Your task to perform on an android device: turn off translation in the chrome app Image 0: 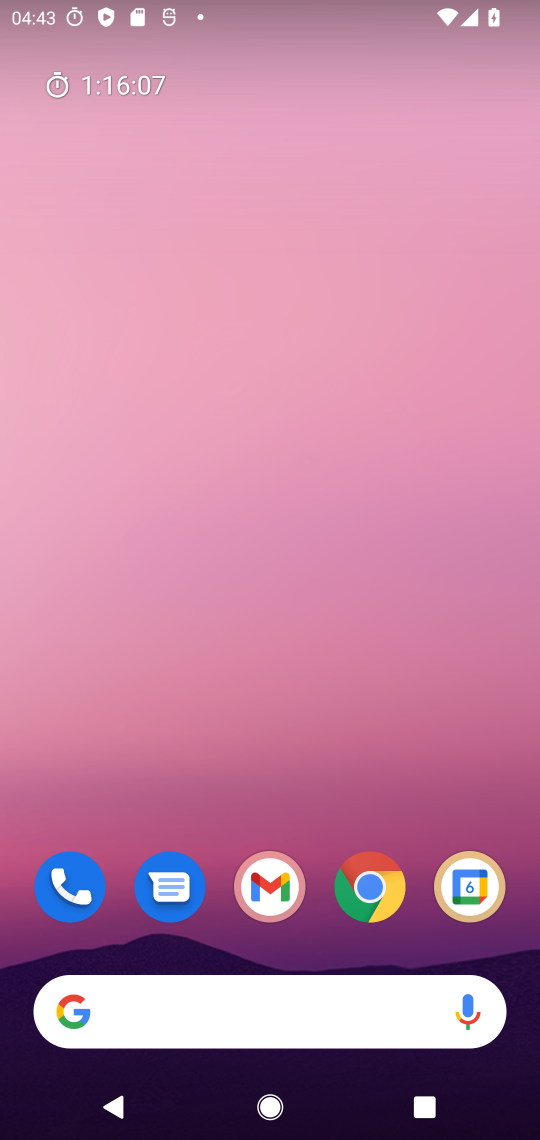
Step 0: press home button
Your task to perform on an android device: turn off translation in the chrome app Image 1: 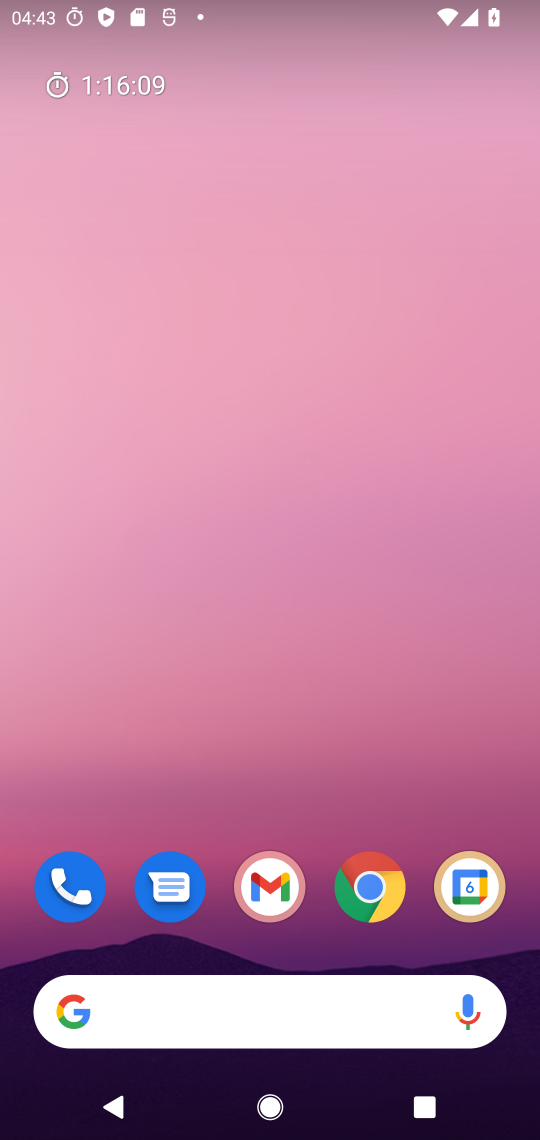
Step 1: drag from (414, 771) to (398, 292)
Your task to perform on an android device: turn off translation in the chrome app Image 2: 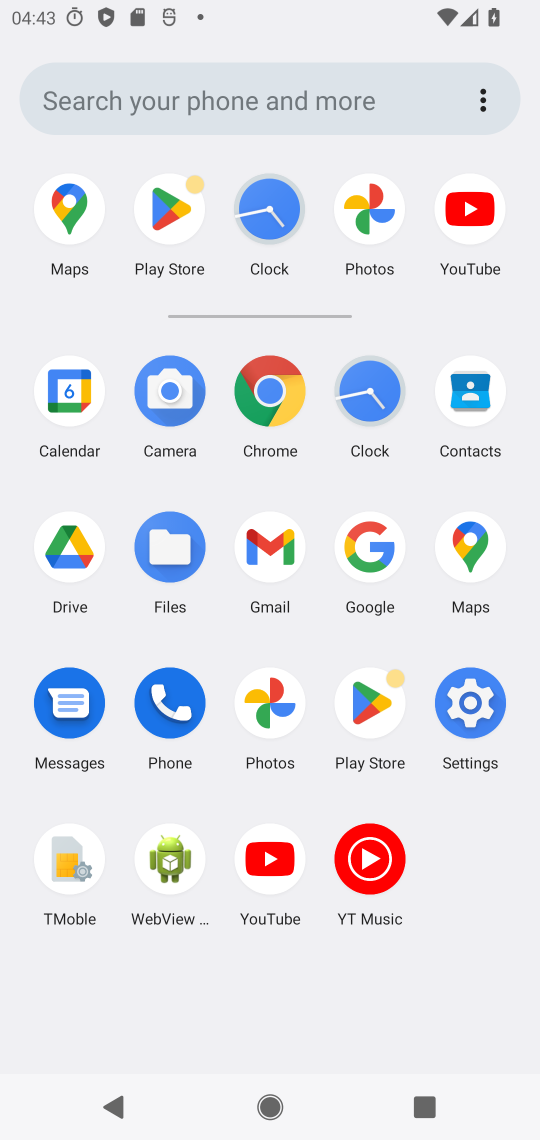
Step 2: click (260, 400)
Your task to perform on an android device: turn off translation in the chrome app Image 3: 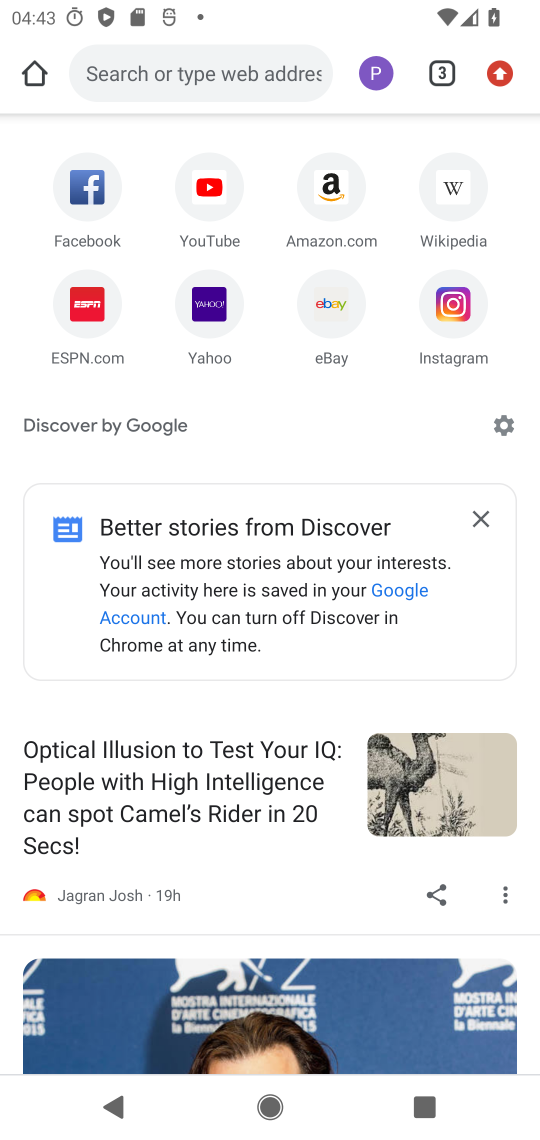
Step 3: click (497, 73)
Your task to perform on an android device: turn off translation in the chrome app Image 4: 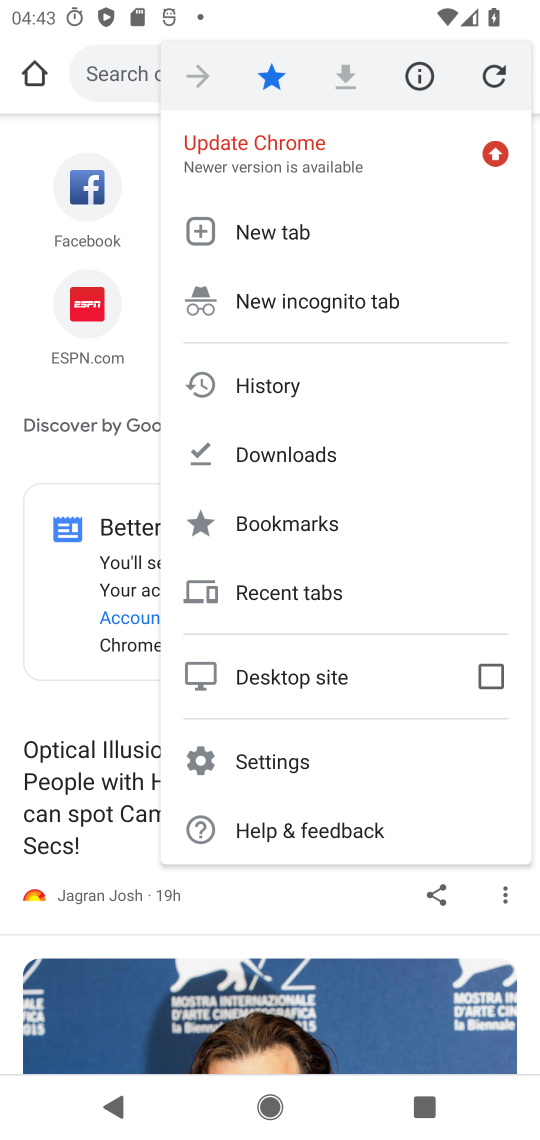
Step 4: click (347, 754)
Your task to perform on an android device: turn off translation in the chrome app Image 5: 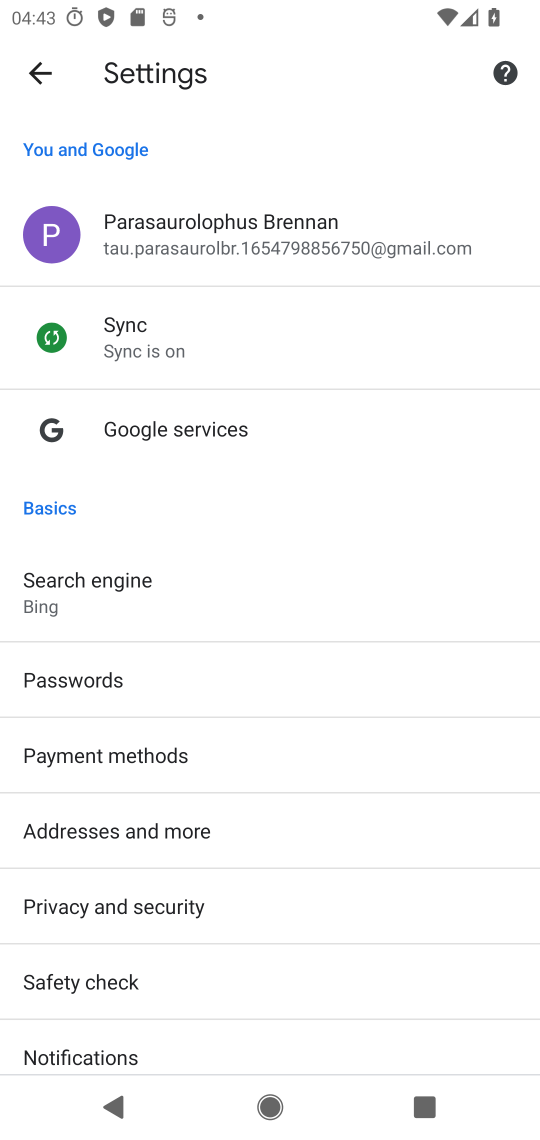
Step 5: drag from (377, 878) to (374, 765)
Your task to perform on an android device: turn off translation in the chrome app Image 6: 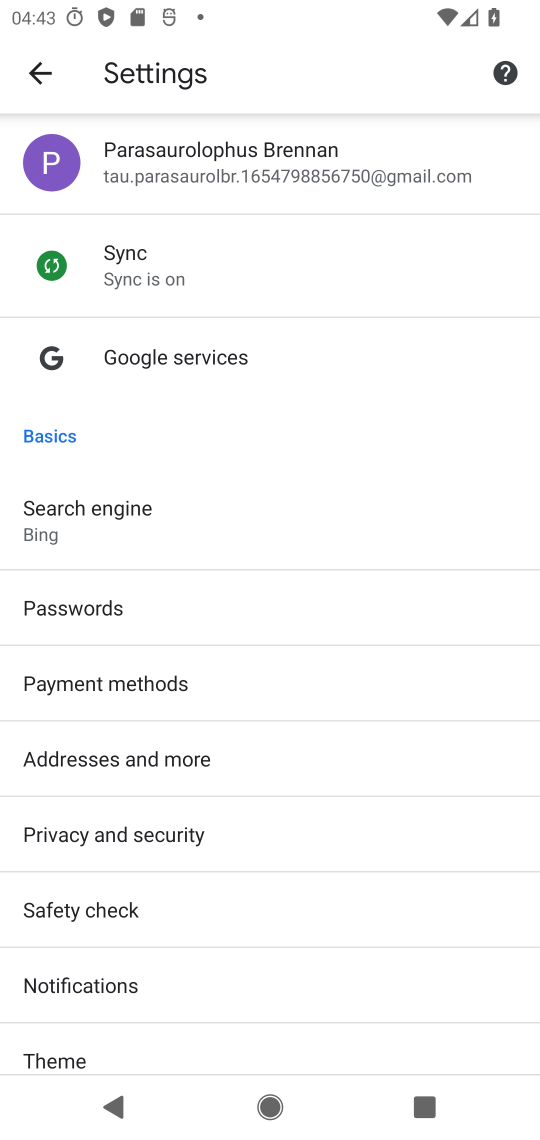
Step 6: drag from (363, 934) to (358, 775)
Your task to perform on an android device: turn off translation in the chrome app Image 7: 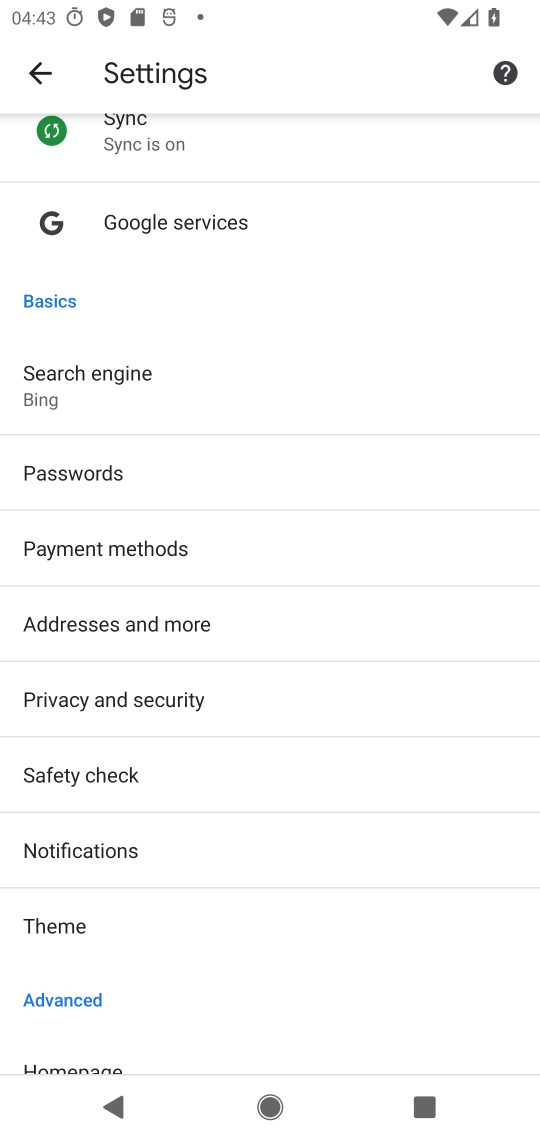
Step 7: drag from (350, 944) to (341, 695)
Your task to perform on an android device: turn off translation in the chrome app Image 8: 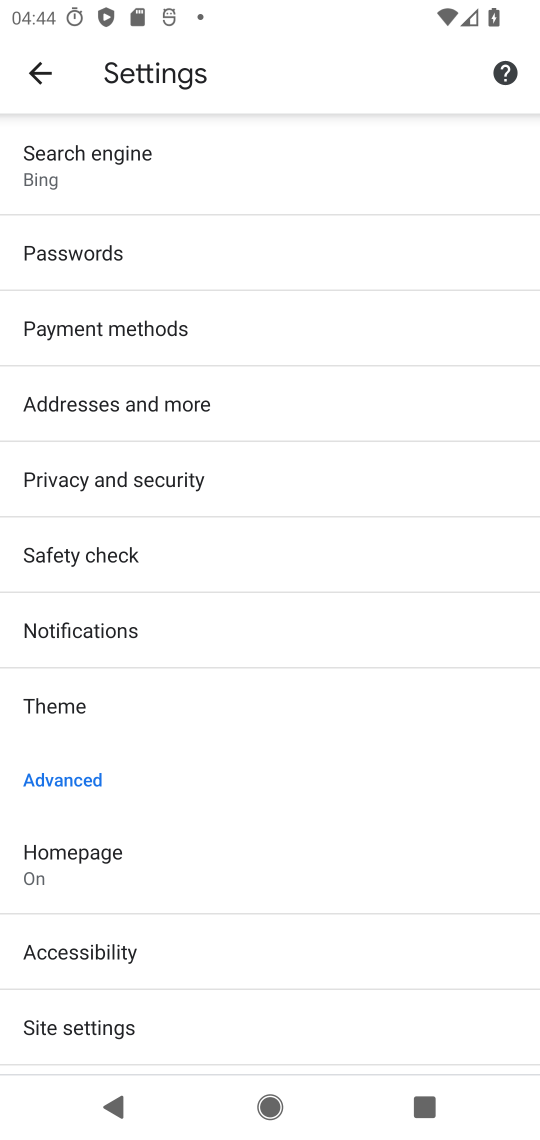
Step 8: drag from (299, 933) to (296, 677)
Your task to perform on an android device: turn off translation in the chrome app Image 9: 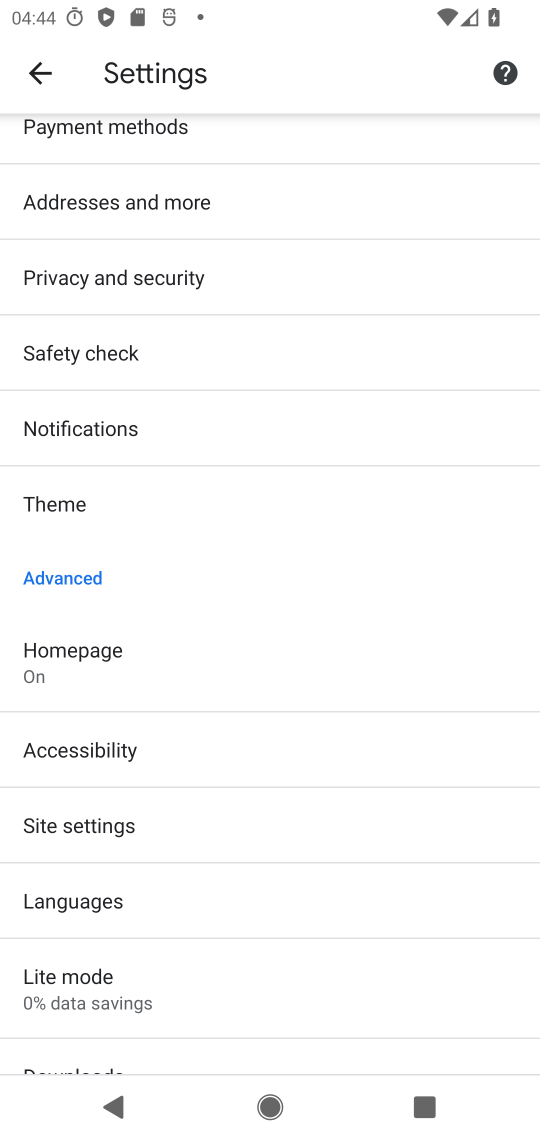
Step 9: drag from (290, 941) to (312, 676)
Your task to perform on an android device: turn off translation in the chrome app Image 10: 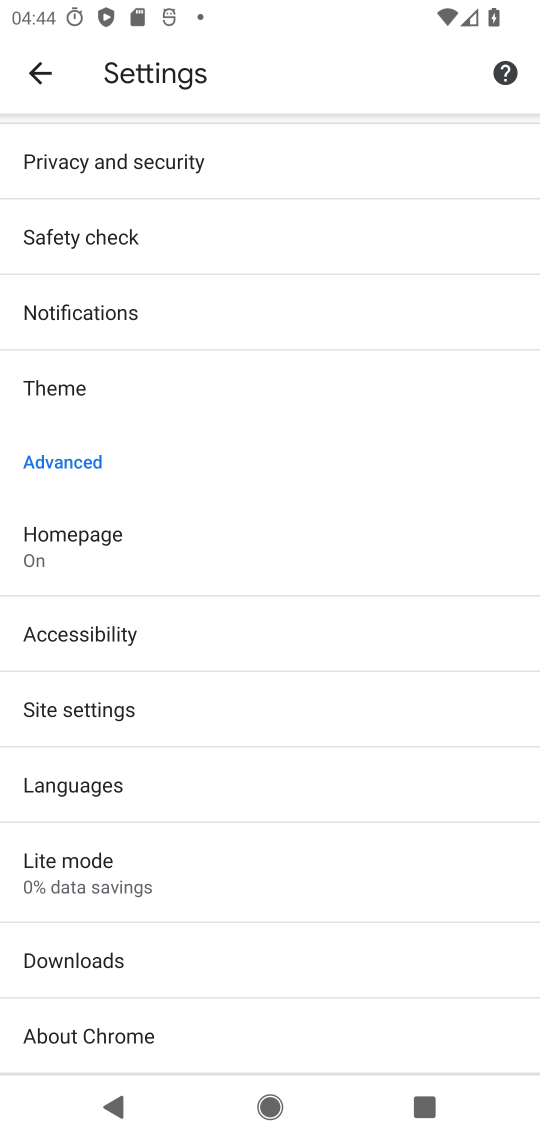
Step 10: click (281, 790)
Your task to perform on an android device: turn off translation in the chrome app Image 11: 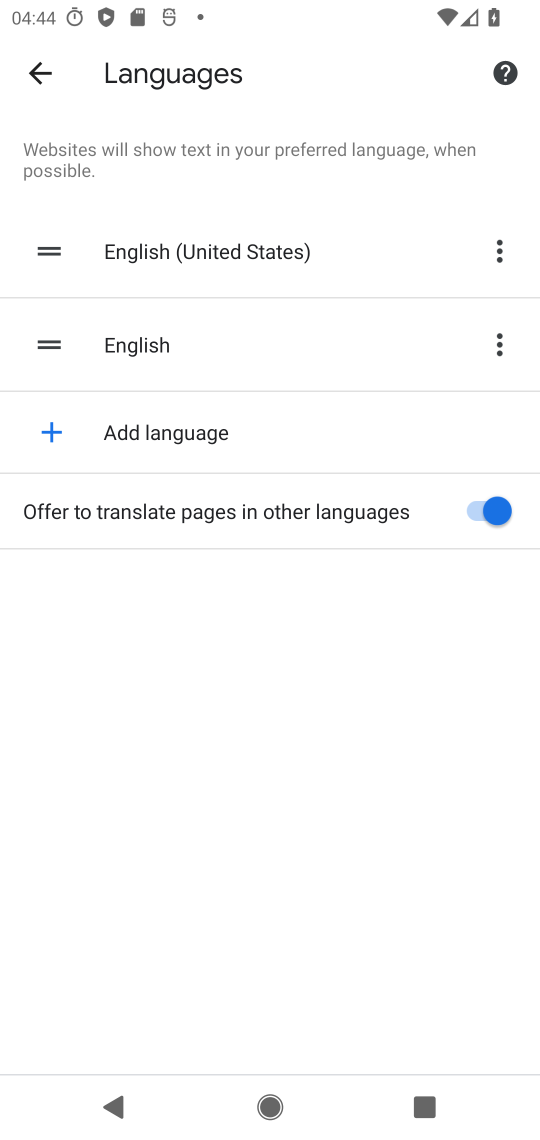
Step 11: click (498, 510)
Your task to perform on an android device: turn off translation in the chrome app Image 12: 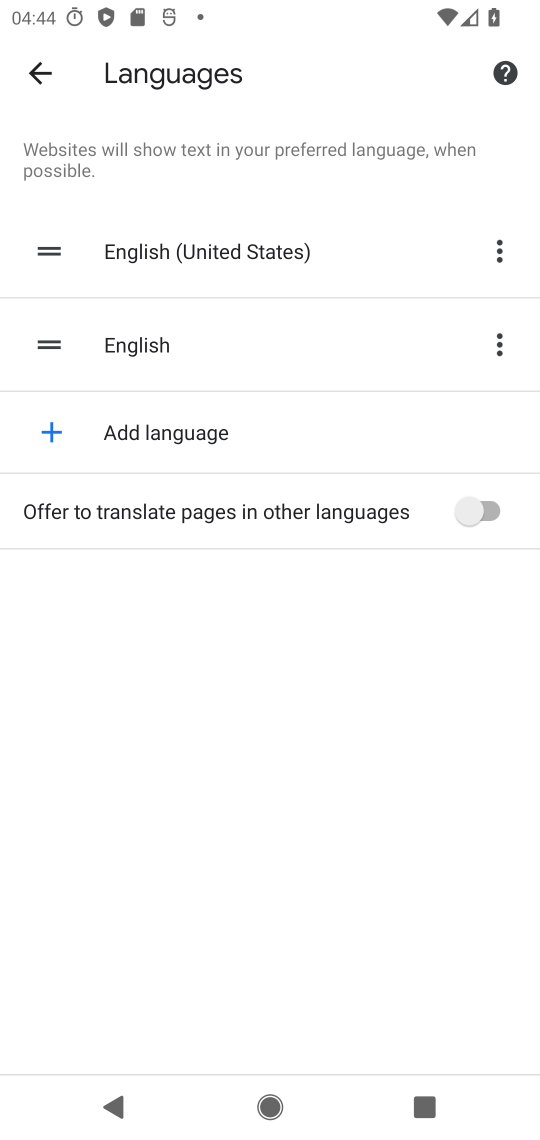
Step 12: task complete